Your task to perform on an android device: Go to display settings Image 0: 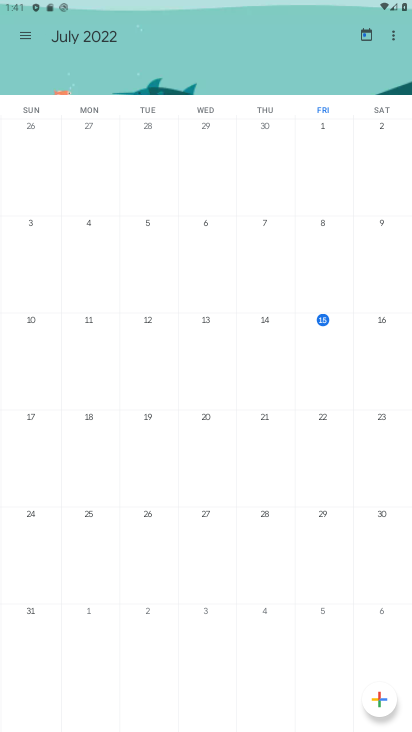
Step 0: press home button
Your task to perform on an android device: Go to display settings Image 1: 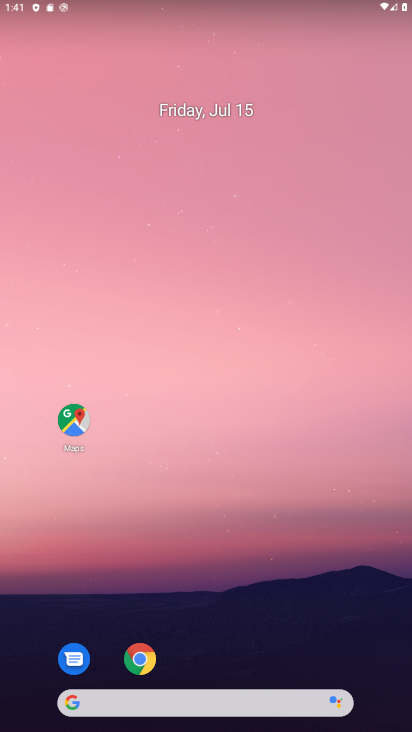
Step 1: drag from (273, 643) to (117, 78)
Your task to perform on an android device: Go to display settings Image 2: 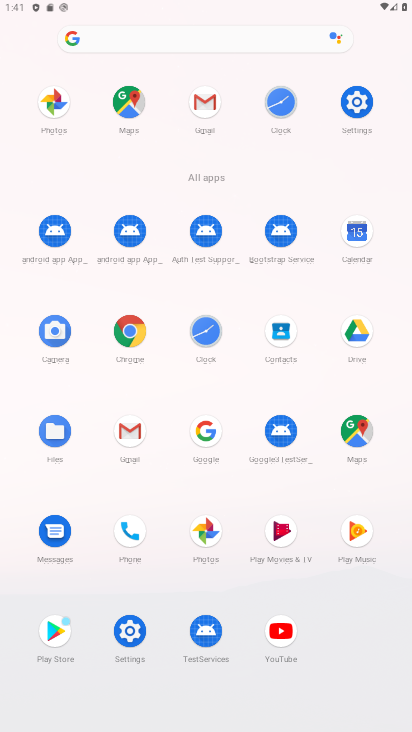
Step 2: click (354, 94)
Your task to perform on an android device: Go to display settings Image 3: 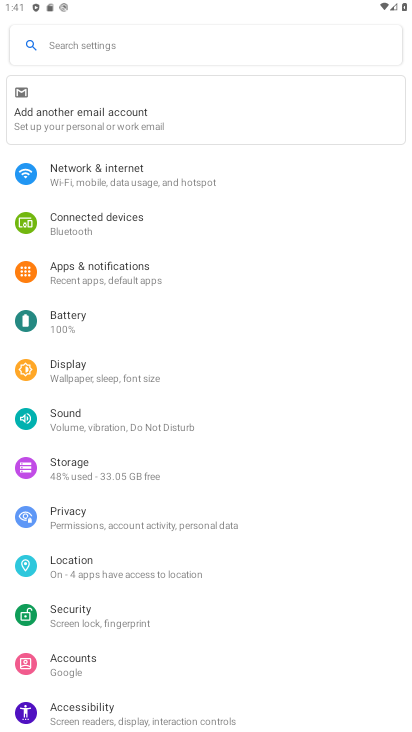
Step 3: click (181, 362)
Your task to perform on an android device: Go to display settings Image 4: 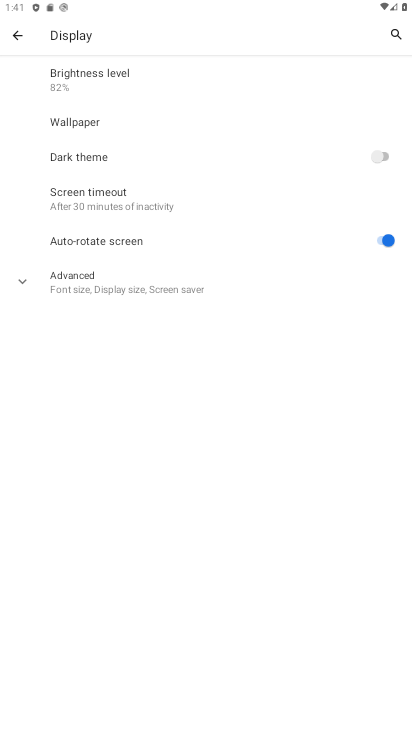
Step 4: task complete